Your task to perform on an android device: Open eBay Image 0: 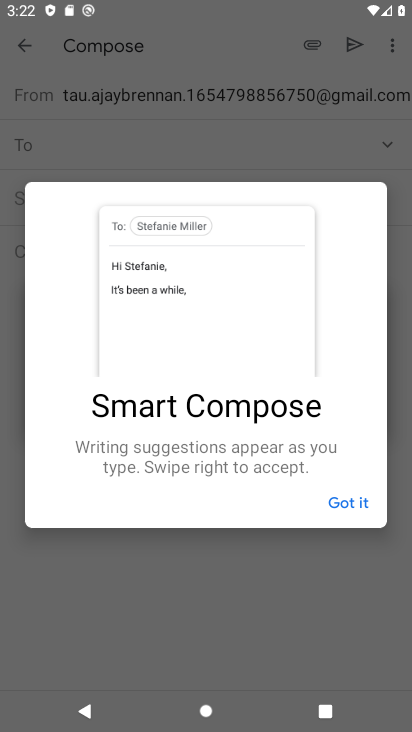
Step 0: press home button
Your task to perform on an android device: Open eBay Image 1: 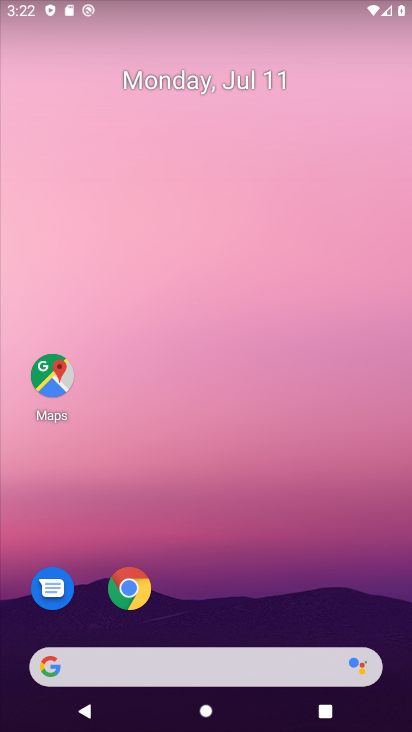
Step 1: drag from (340, 592) to (362, 98)
Your task to perform on an android device: Open eBay Image 2: 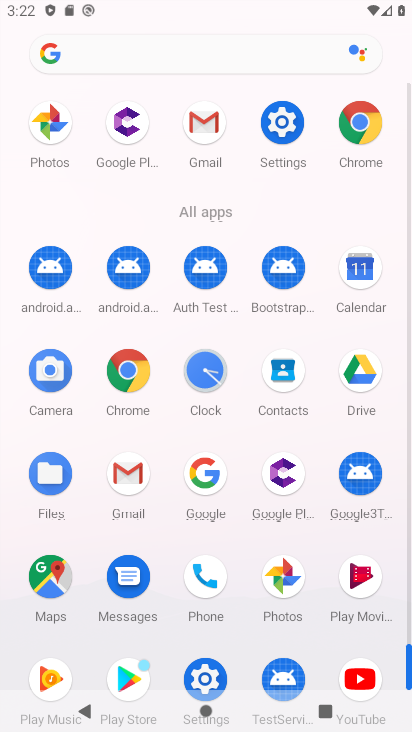
Step 2: click (129, 381)
Your task to perform on an android device: Open eBay Image 3: 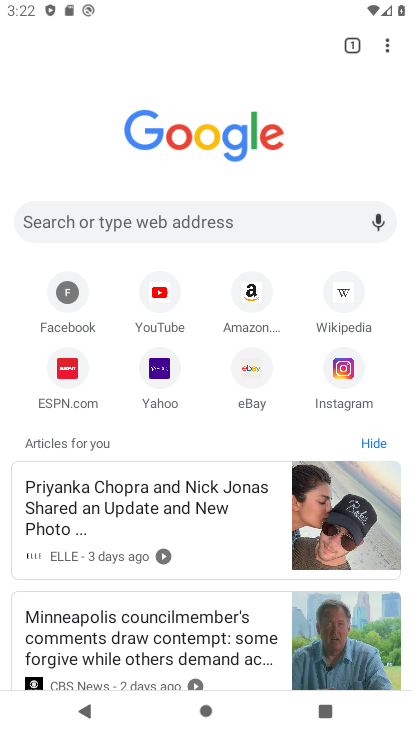
Step 3: click (239, 214)
Your task to perform on an android device: Open eBay Image 4: 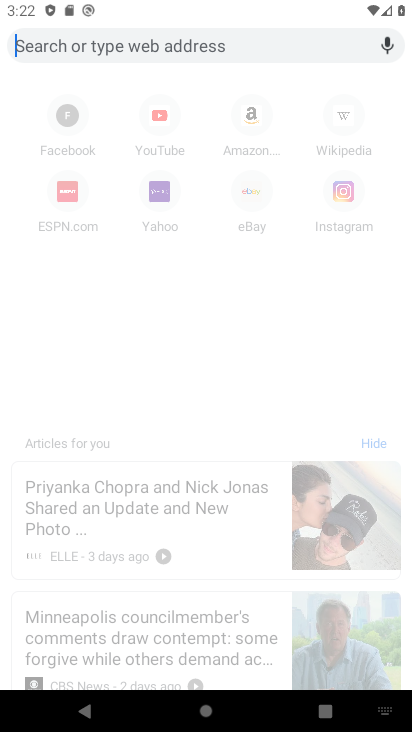
Step 4: type "ebay"
Your task to perform on an android device: Open eBay Image 5: 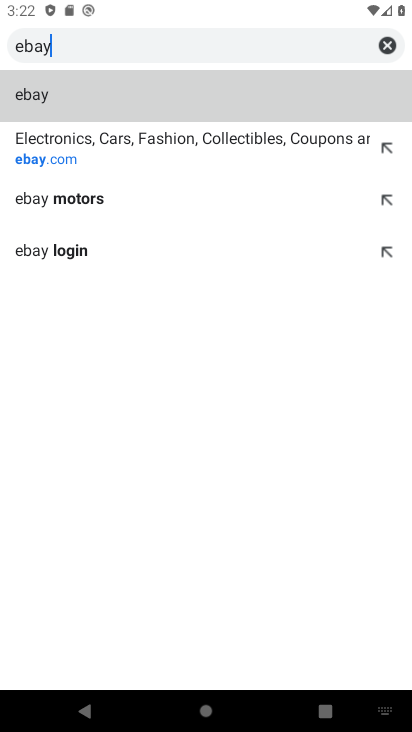
Step 5: click (87, 149)
Your task to perform on an android device: Open eBay Image 6: 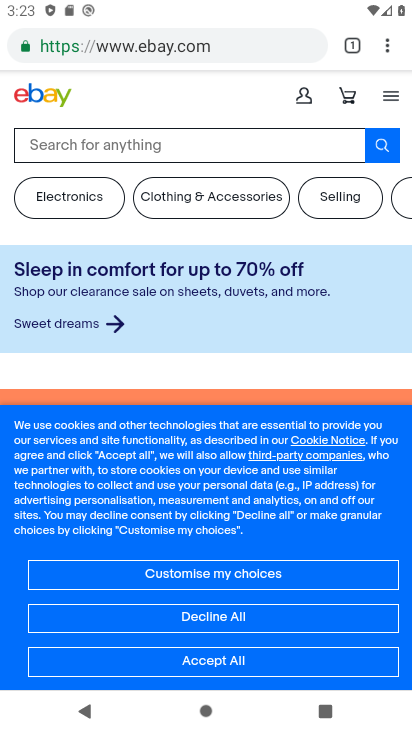
Step 6: task complete